Your task to perform on an android device: turn off location Image 0: 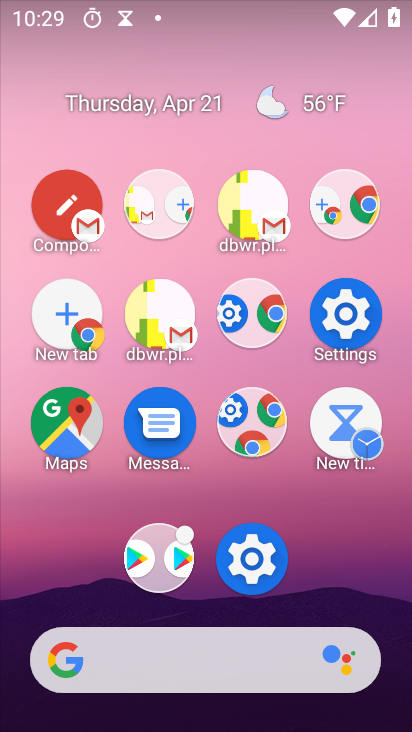
Step 0: drag from (258, 307) to (178, 26)
Your task to perform on an android device: turn off location Image 1: 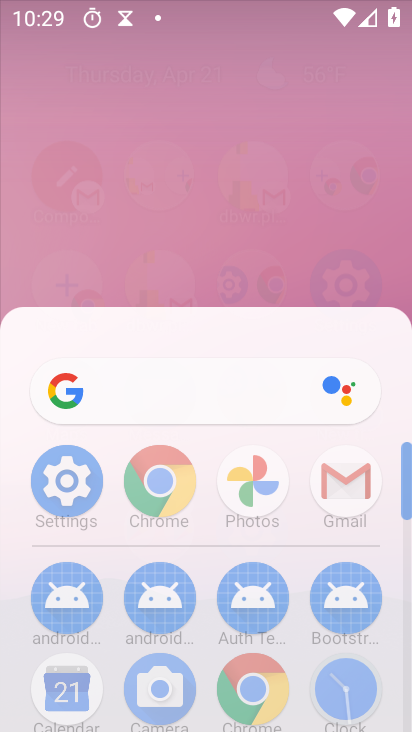
Step 1: drag from (289, 510) to (164, 94)
Your task to perform on an android device: turn off location Image 2: 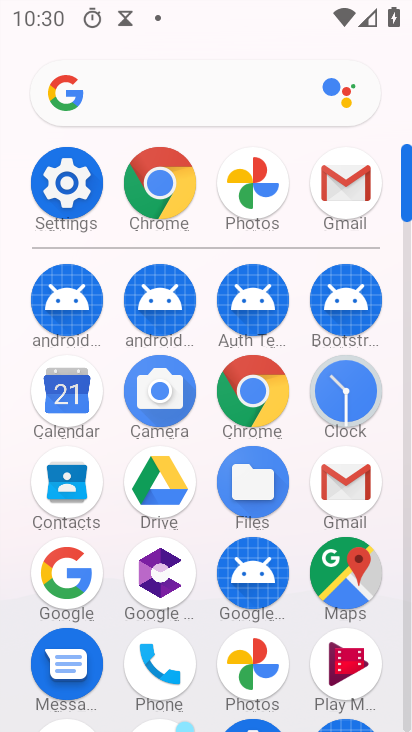
Step 2: click (71, 197)
Your task to perform on an android device: turn off location Image 3: 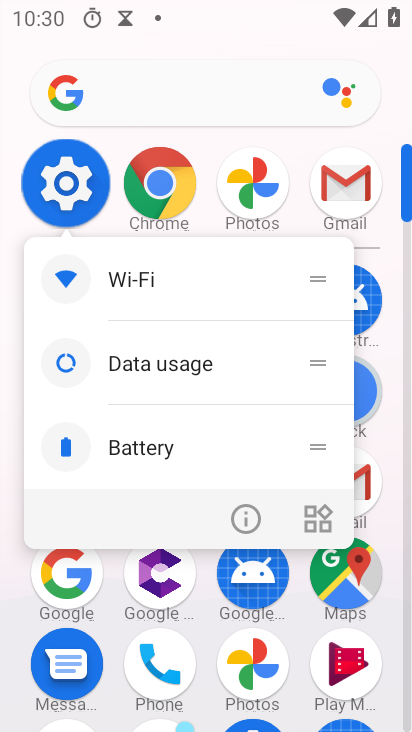
Step 3: click (71, 197)
Your task to perform on an android device: turn off location Image 4: 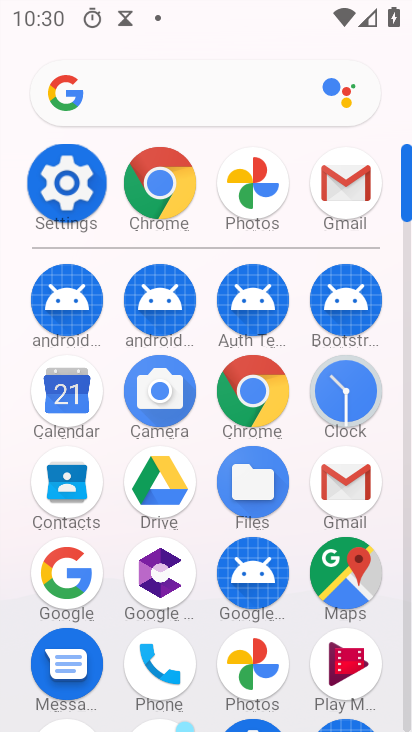
Step 4: click (71, 197)
Your task to perform on an android device: turn off location Image 5: 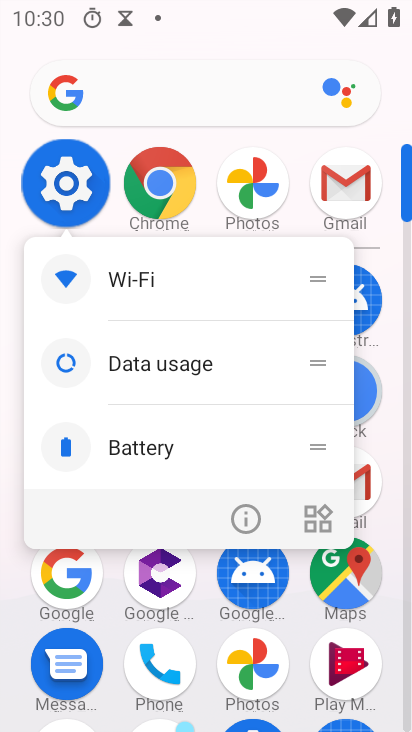
Step 5: click (71, 197)
Your task to perform on an android device: turn off location Image 6: 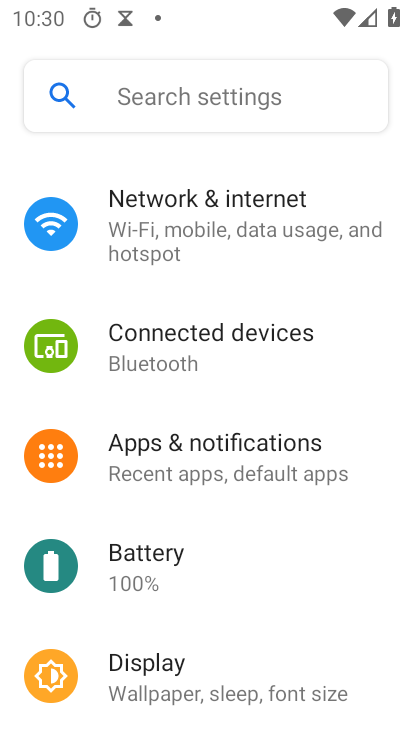
Step 6: click (72, 194)
Your task to perform on an android device: turn off location Image 7: 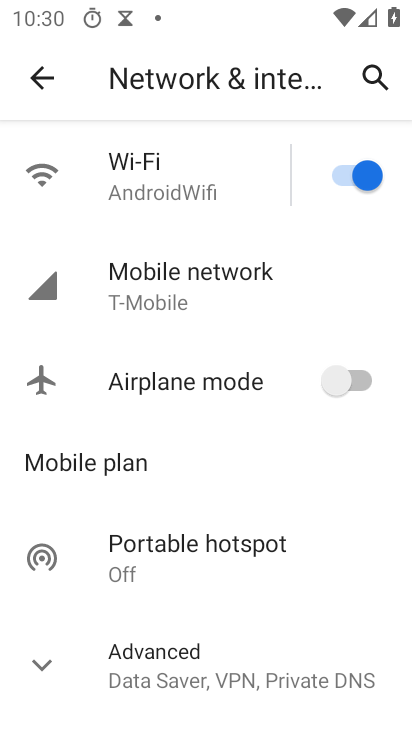
Step 7: click (31, 58)
Your task to perform on an android device: turn off location Image 8: 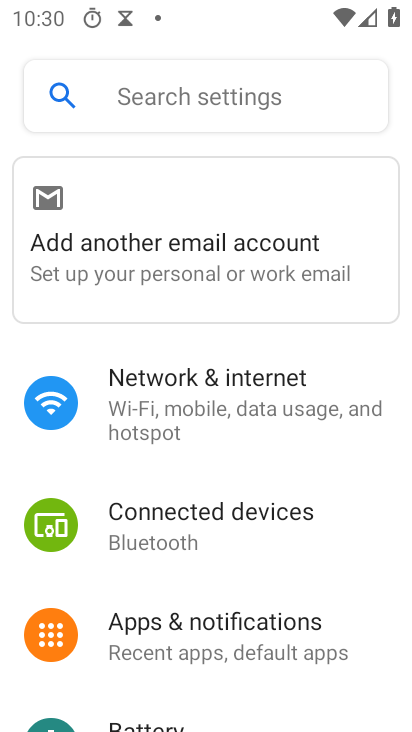
Step 8: drag from (234, 546) to (173, 310)
Your task to perform on an android device: turn off location Image 9: 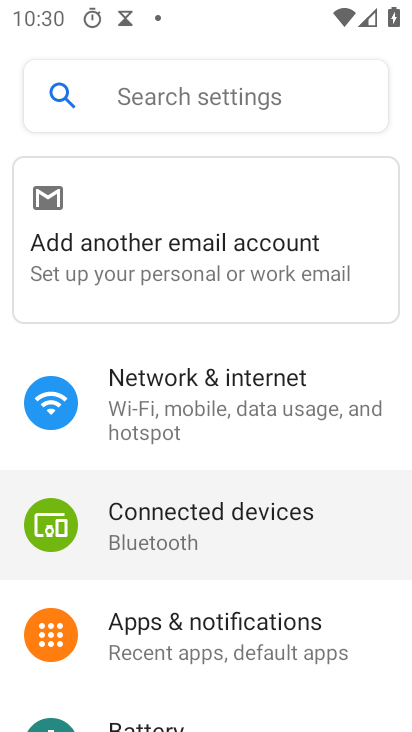
Step 9: drag from (249, 551) to (200, 264)
Your task to perform on an android device: turn off location Image 10: 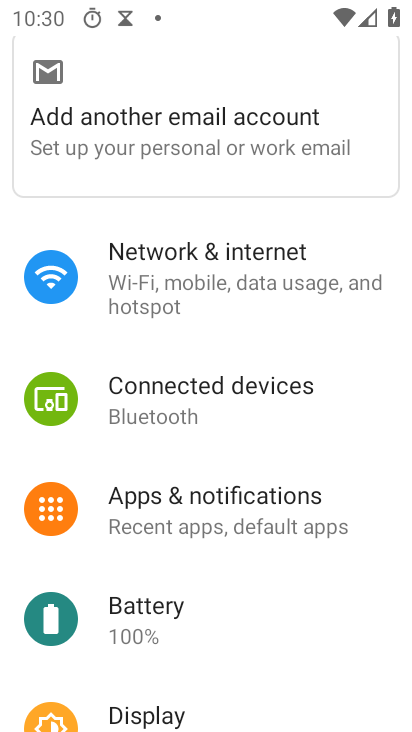
Step 10: drag from (219, 572) to (203, 279)
Your task to perform on an android device: turn off location Image 11: 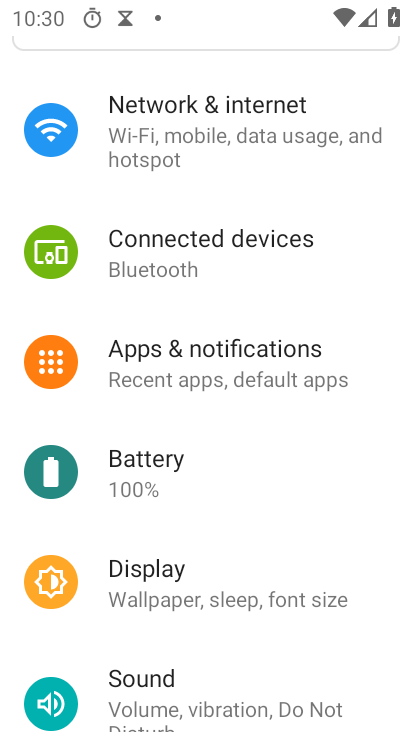
Step 11: drag from (149, 466) to (173, 196)
Your task to perform on an android device: turn off location Image 12: 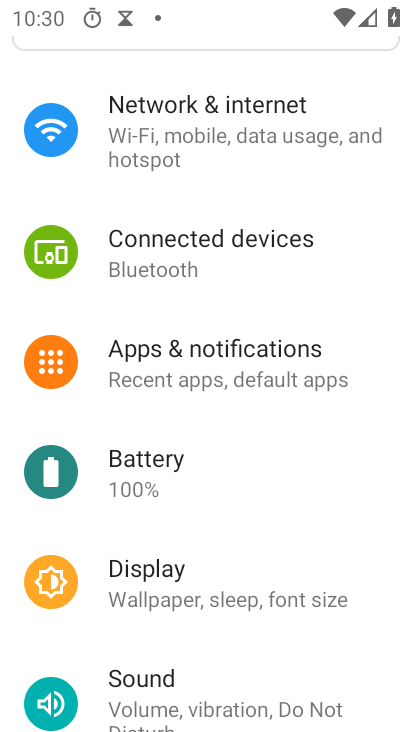
Step 12: drag from (204, 416) to (200, 232)
Your task to perform on an android device: turn off location Image 13: 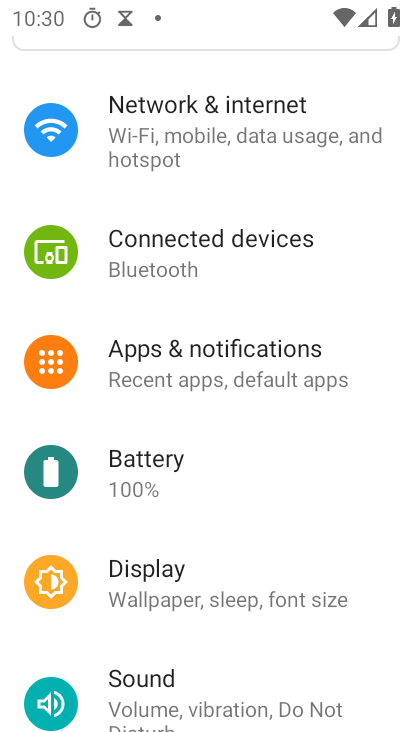
Step 13: drag from (252, 448) to (252, 43)
Your task to perform on an android device: turn off location Image 14: 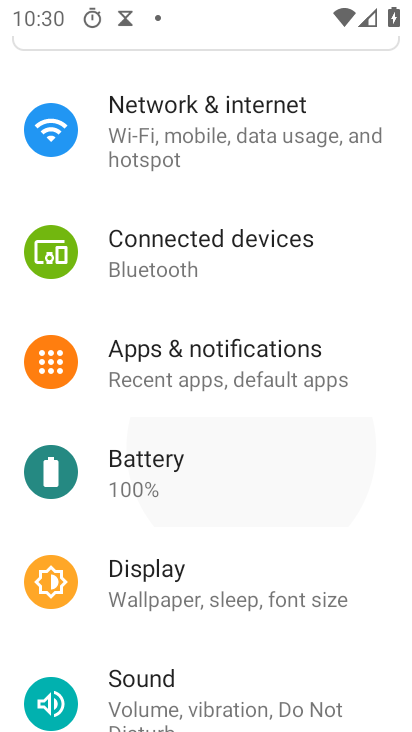
Step 14: drag from (192, 311) to (148, 108)
Your task to perform on an android device: turn off location Image 15: 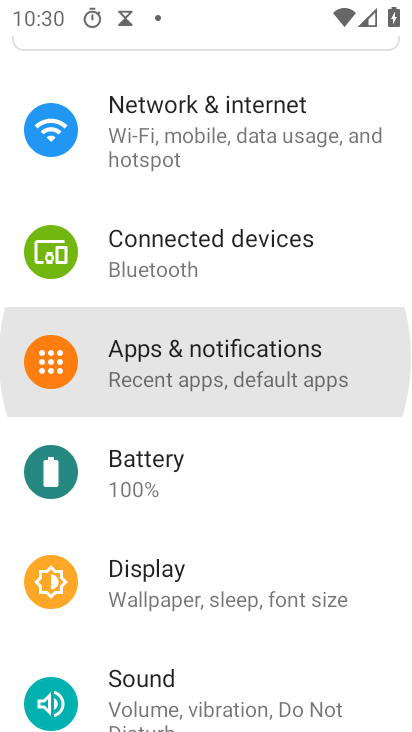
Step 15: drag from (111, 305) to (73, 160)
Your task to perform on an android device: turn off location Image 16: 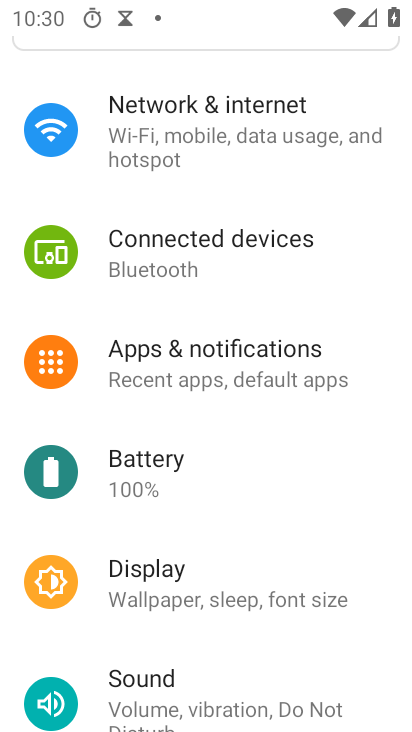
Step 16: drag from (164, 404) to (115, 91)
Your task to perform on an android device: turn off location Image 17: 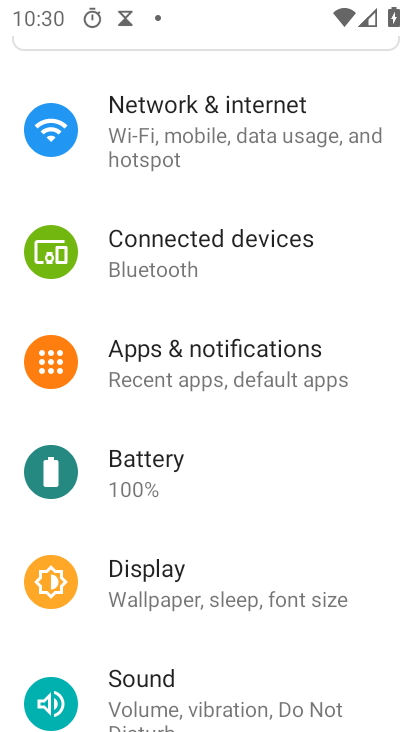
Step 17: drag from (177, 396) to (176, 81)
Your task to perform on an android device: turn off location Image 18: 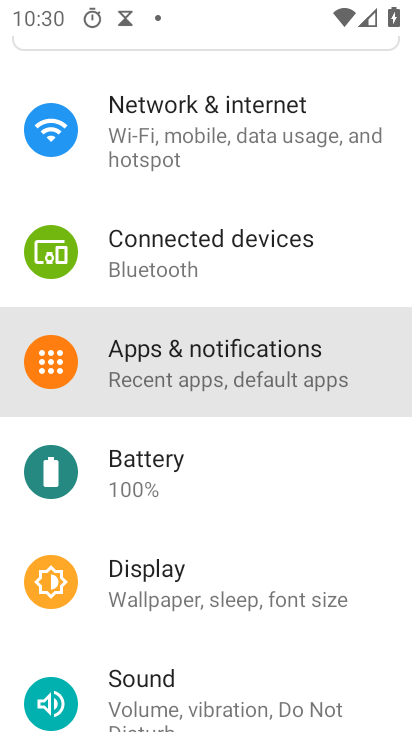
Step 18: drag from (190, 326) to (203, 52)
Your task to perform on an android device: turn off location Image 19: 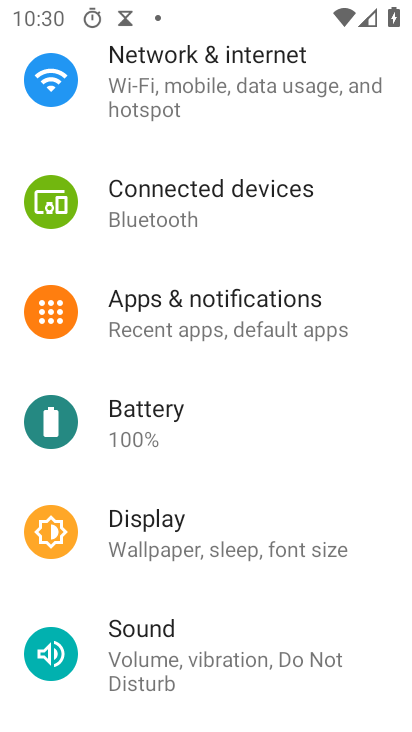
Step 19: drag from (192, 537) to (200, 206)
Your task to perform on an android device: turn off location Image 20: 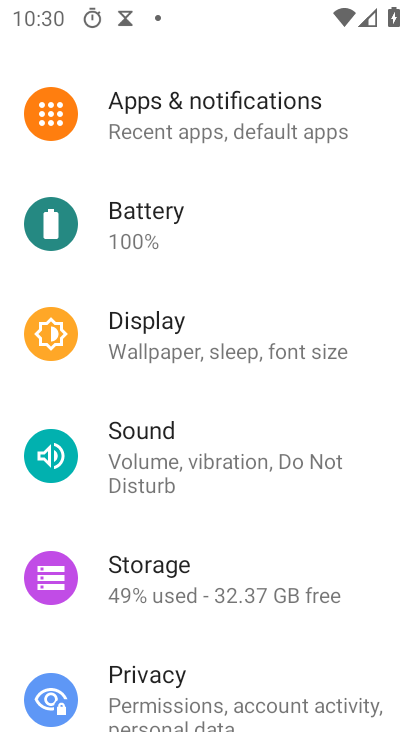
Step 20: drag from (190, 595) to (203, 147)
Your task to perform on an android device: turn off location Image 21: 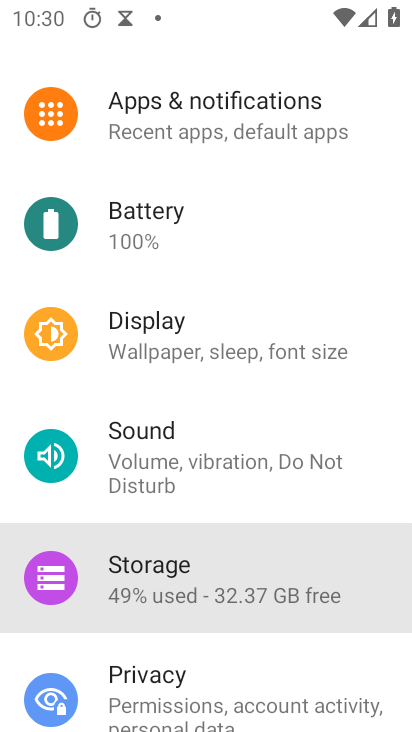
Step 21: drag from (213, 413) to (185, 129)
Your task to perform on an android device: turn off location Image 22: 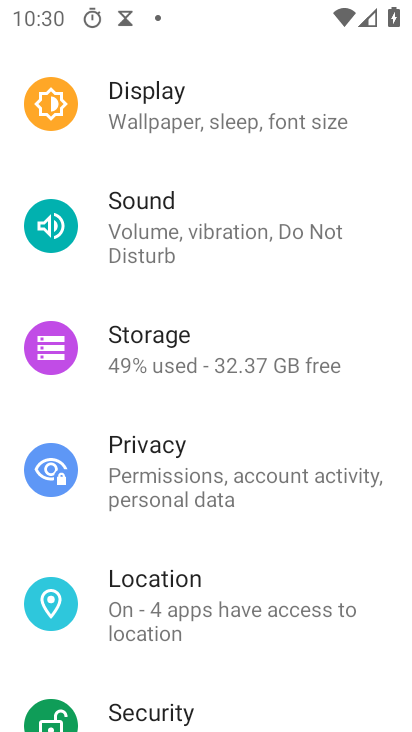
Step 22: click (177, 586)
Your task to perform on an android device: turn off location Image 23: 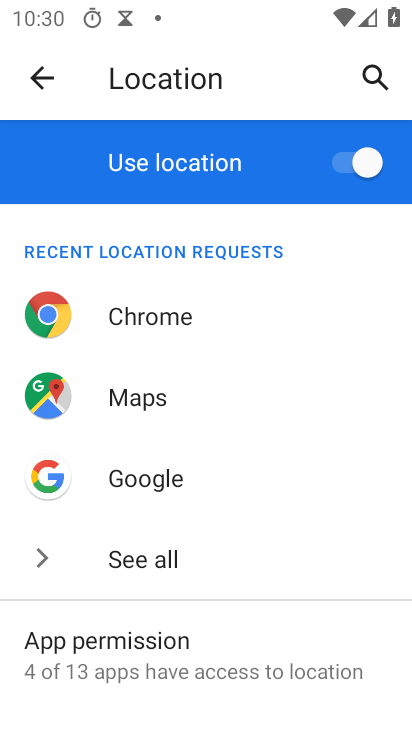
Step 23: click (137, 332)
Your task to perform on an android device: turn off location Image 24: 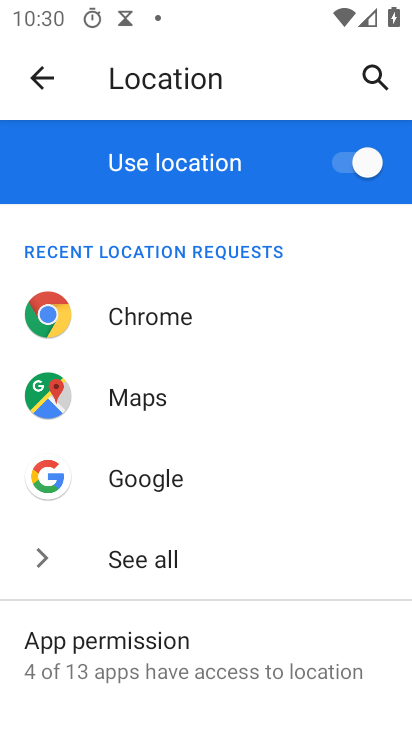
Step 24: drag from (221, 639) to (230, 274)
Your task to perform on an android device: turn off location Image 25: 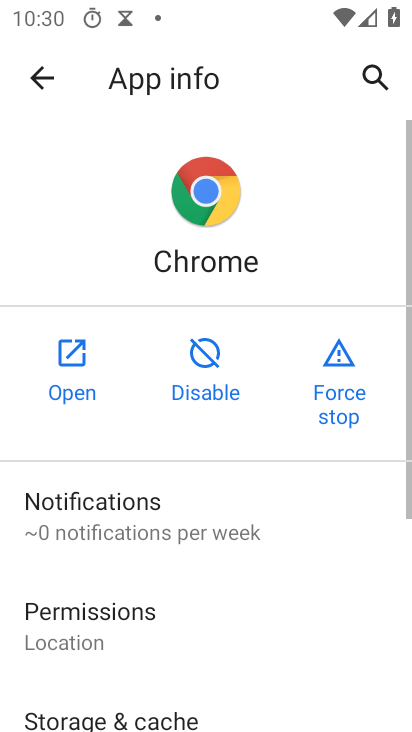
Step 25: drag from (230, 641) to (222, 205)
Your task to perform on an android device: turn off location Image 26: 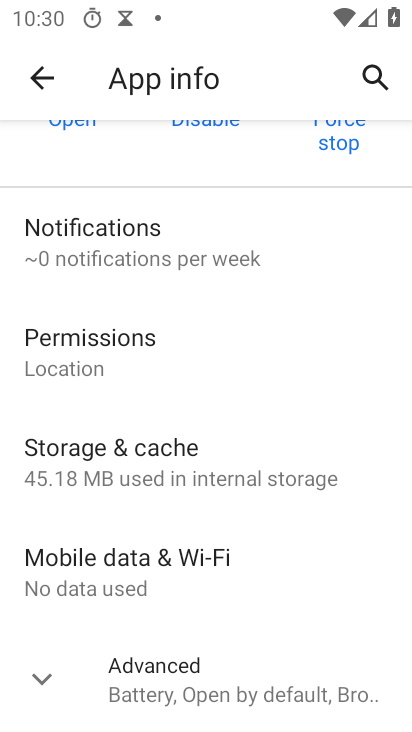
Step 26: click (33, 74)
Your task to perform on an android device: turn off location Image 27: 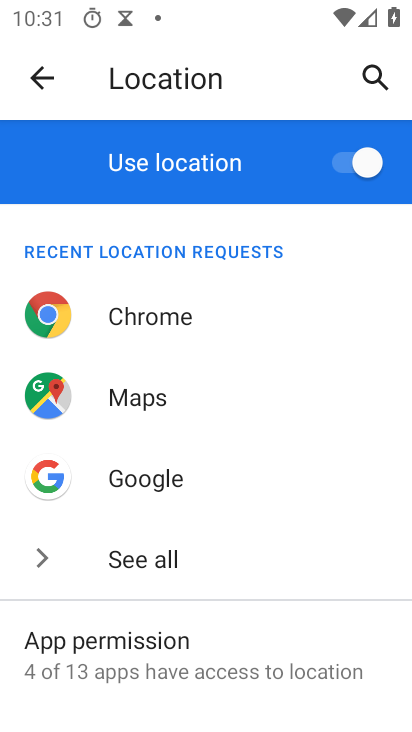
Step 27: click (356, 165)
Your task to perform on an android device: turn off location Image 28: 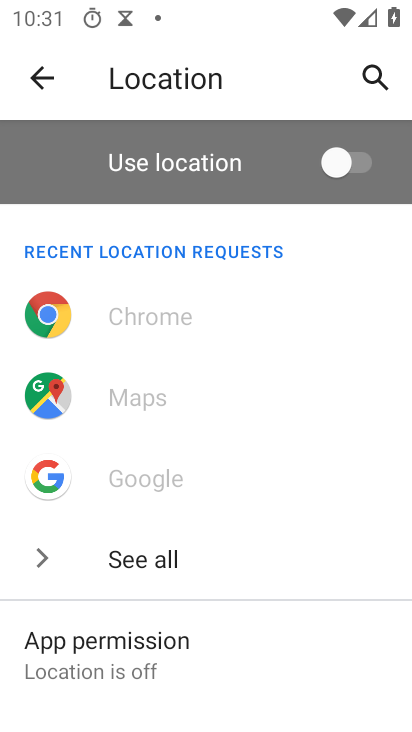
Step 28: task complete